Your task to perform on an android device: open chrome privacy settings Image 0: 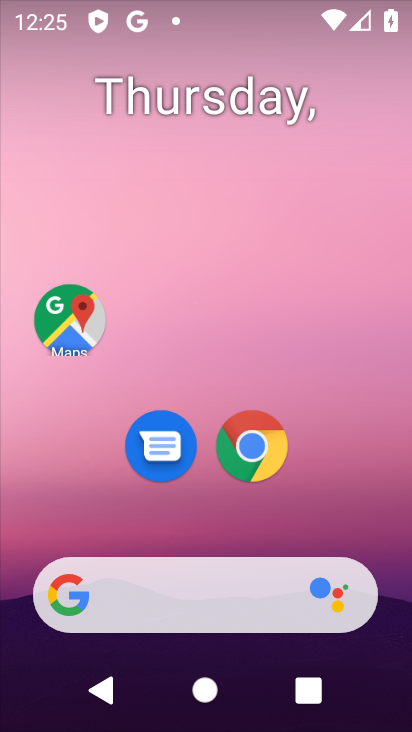
Step 0: click (274, 458)
Your task to perform on an android device: open chrome privacy settings Image 1: 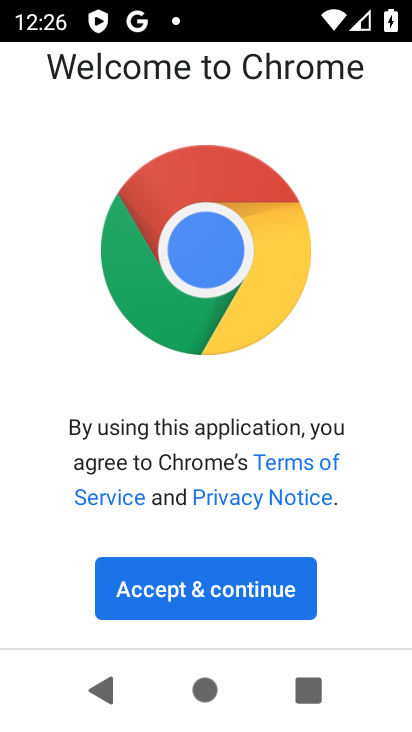
Step 1: click (255, 609)
Your task to perform on an android device: open chrome privacy settings Image 2: 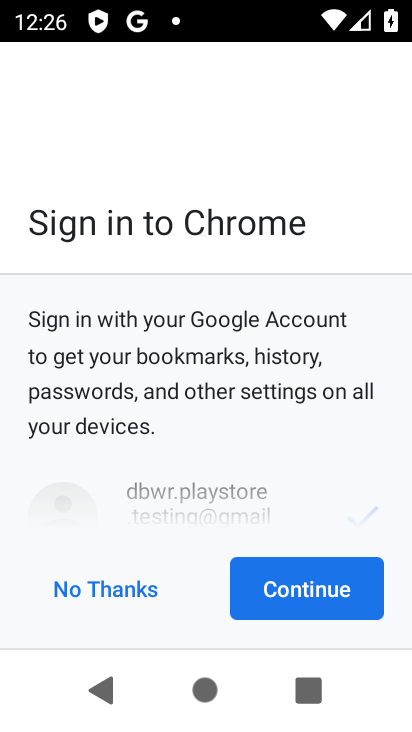
Step 2: click (300, 594)
Your task to perform on an android device: open chrome privacy settings Image 3: 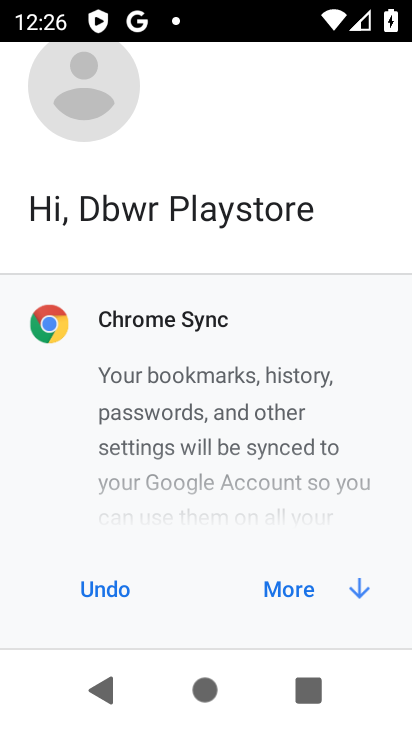
Step 3: click (300, 594)
Your task to perform on an android device: open chrome privacy settings Image 4: 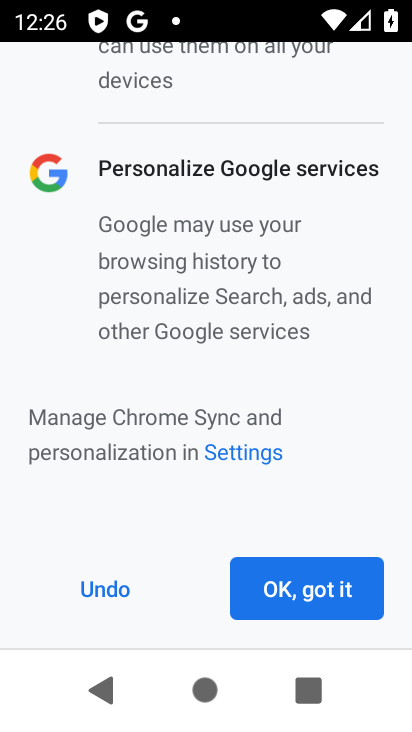
Step 4: click (349, 590)
Your task to perform on an android device: open chrome privacy settings Image 5: 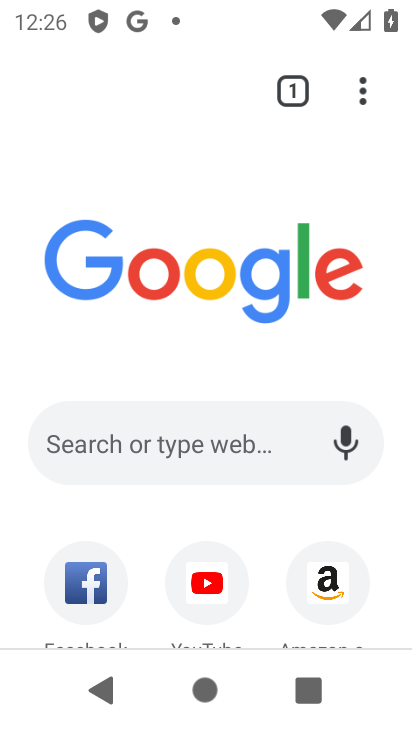
Step 5: drag from (368, 98) to (256, 475)
Your task to perform on an android device: open chrome privacy settings Image 6: 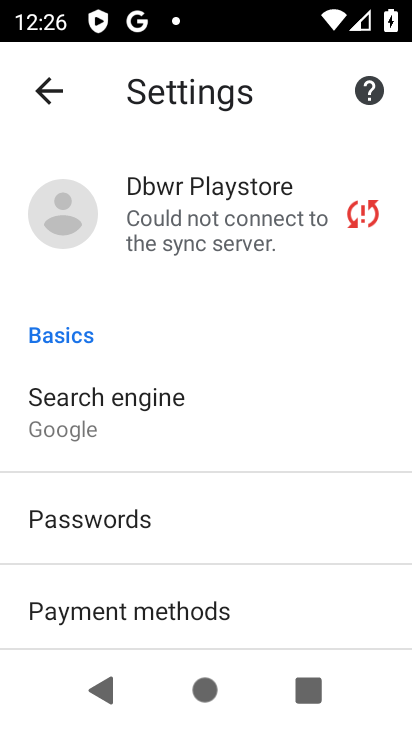
Step 6: drag from (248, 581) to (264, 194)
Your task to perform on an android device: open chrome privacy settings Image 7: 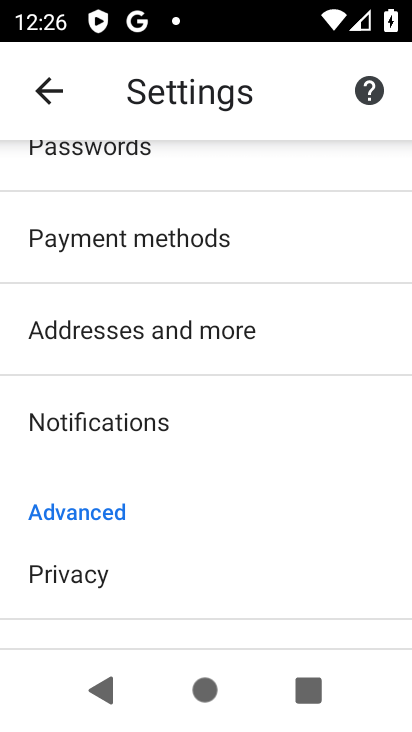
Step 7: click (167, 564)
Your task to perform on an android device: open chrome privacy settings Image 8: 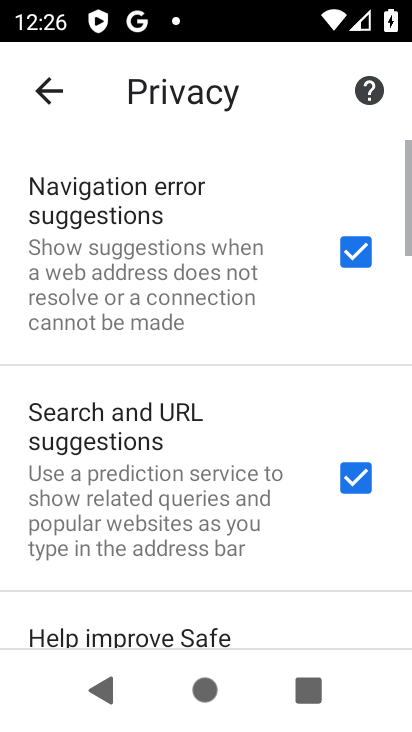
Step 8: task complete